Your task to perform on an android device: Open notification settings Image 0: 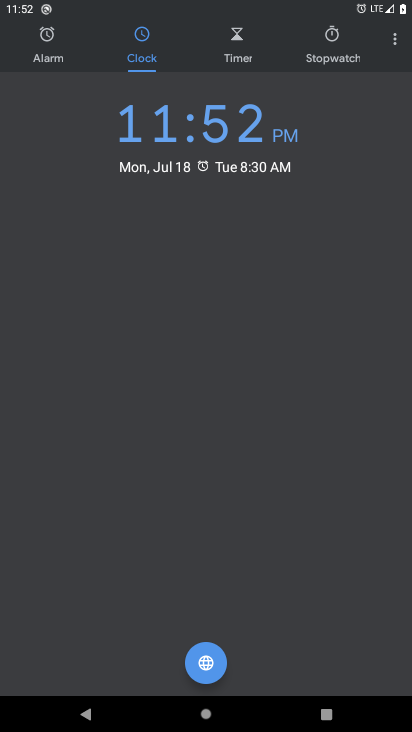
Step 0: press home button
Your task to perform on an android device: Open notification settings Image 1: 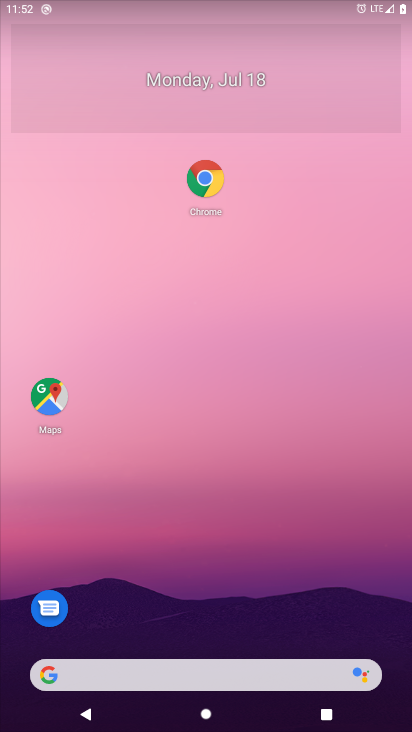
Step 1: drag from (23, 699) to (188, 287)
Your task to perform on an android device: Open notification settings Image 2: 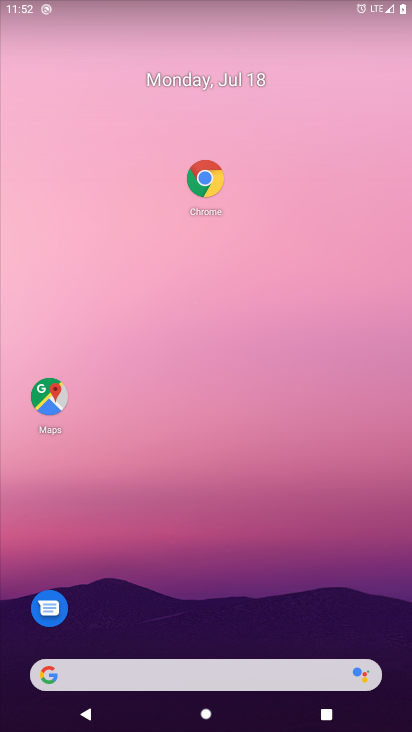
Step 2: drag from (7, 681) to (232, 208)
Your task to perform on an android device: Open notification settings Image 3: 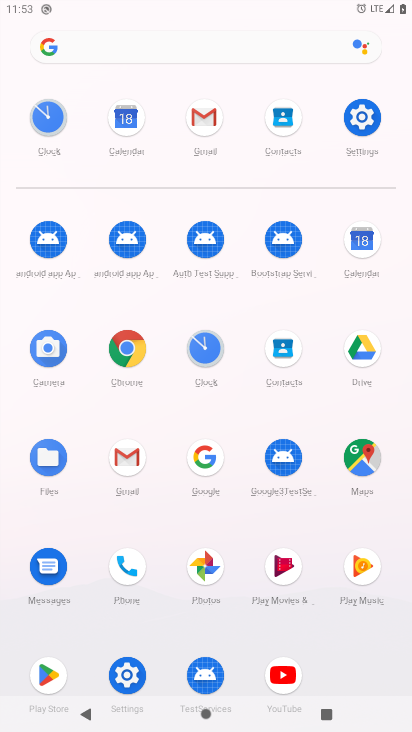
Step 3: click (130, 681)
Your task to perform on an android device: Open notification settings Image 4: 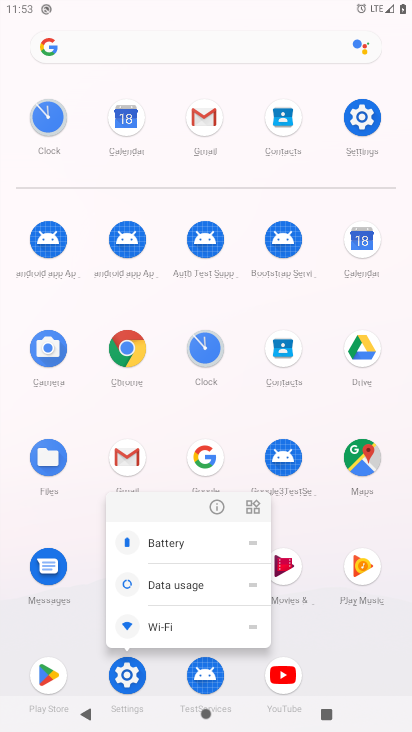
Step 4: click (135, 681)
Your task to perform on an android device: Open notification settings Image 5: 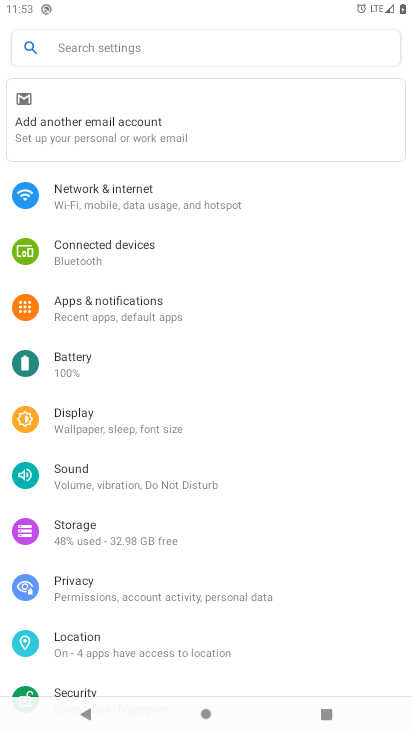
Step 5: click (126, 284)
Your task to perform on an android device: Open notification settings Image 6: 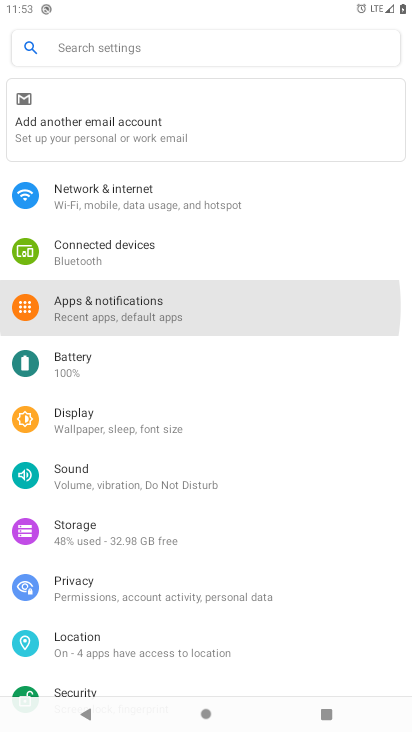
Step 6: click (126, 290)
Your task to perform on an android device: Open notification settings Image 7: 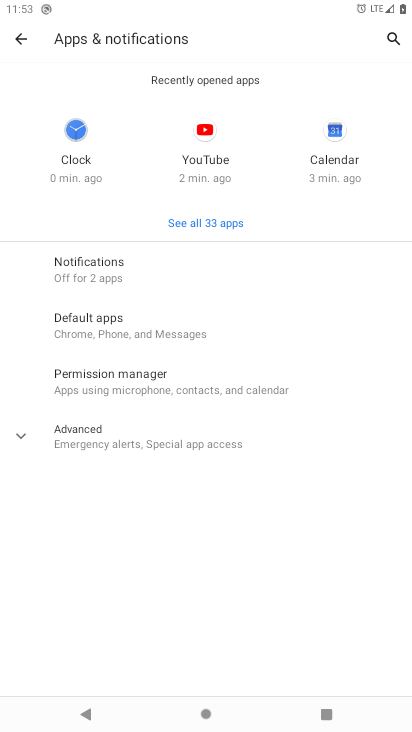
Step 7: click (118, 267)
Your task to perform on an android device: Open notification settings Image 8: 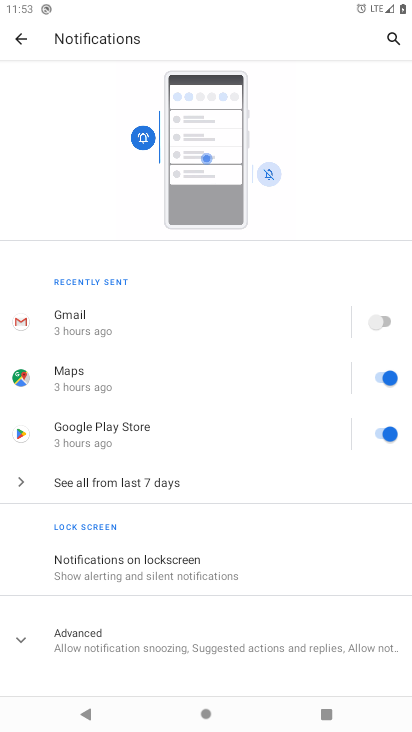
Step 8: task complete